Your task to perform on an android device: Check the weather Image 0: 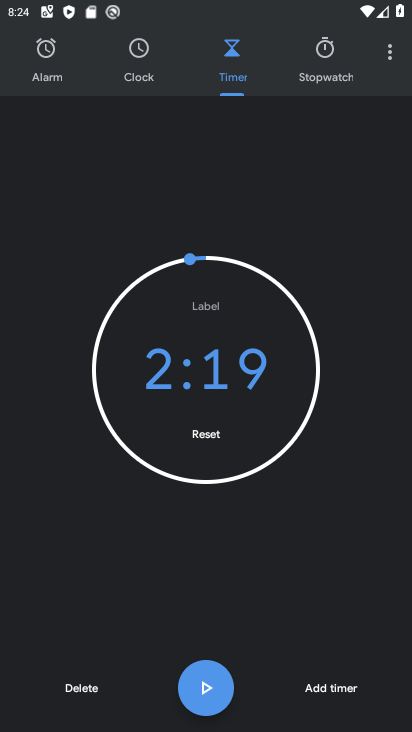
Step 0: press home button
Your task to perform on an android device: Check the weather Image 1: 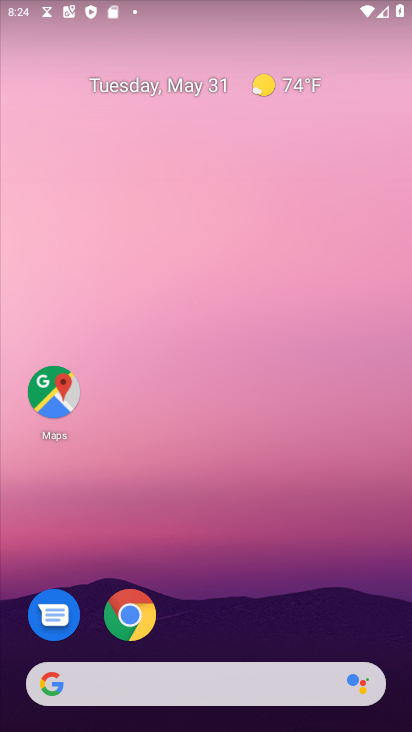
Step 1: click (269, 84)
Your task to perform on an android device: Check the weather Image 2: 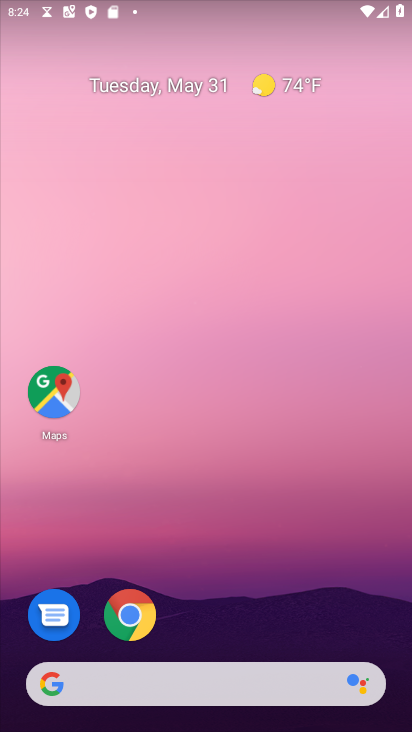
Step 2: click (285, 81)
Your task to perform on an android device: Check the weather Image 3: 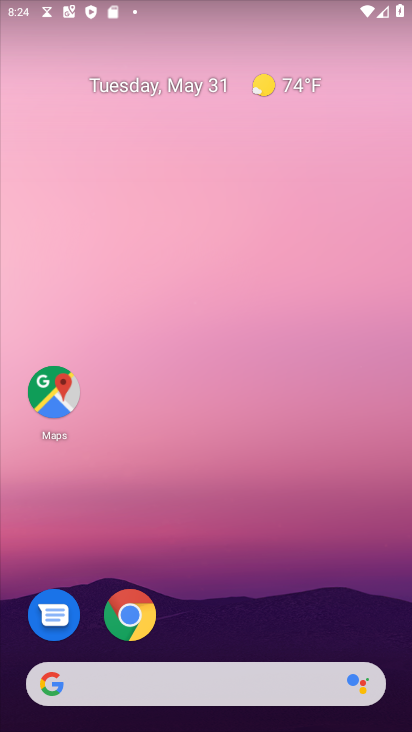
Step 3: click (285, 83)
Your task to perform on an android device: Check the weather Image 4: 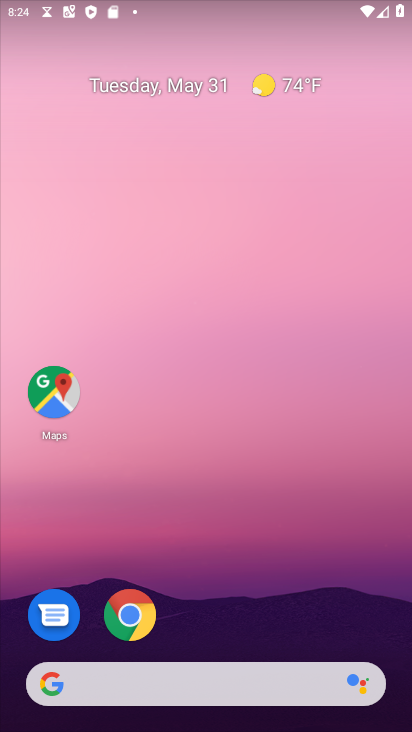
Step 4: click (261, 82)
Your task to perform on an android device: Check the weather Image 5: 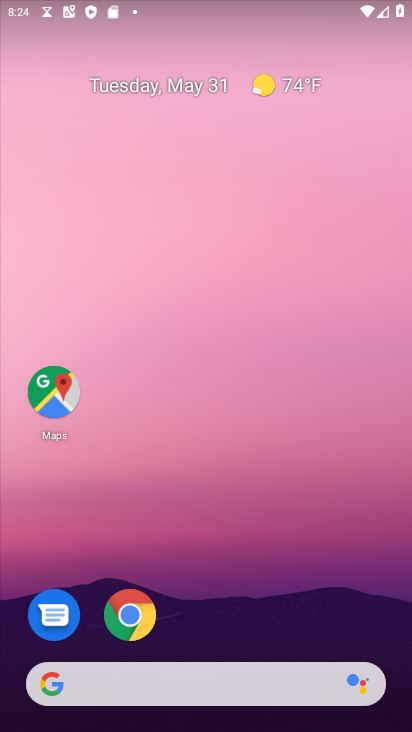
Step 5: click (59, 686)
Your task to perform on an android device: Check the weather Image 6: 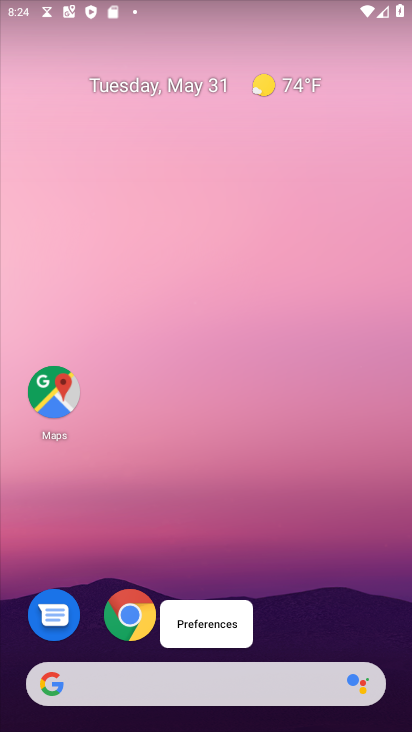
Step 6: click (57, 686)
Your task to perform on an android device: Check the weather Image 7: 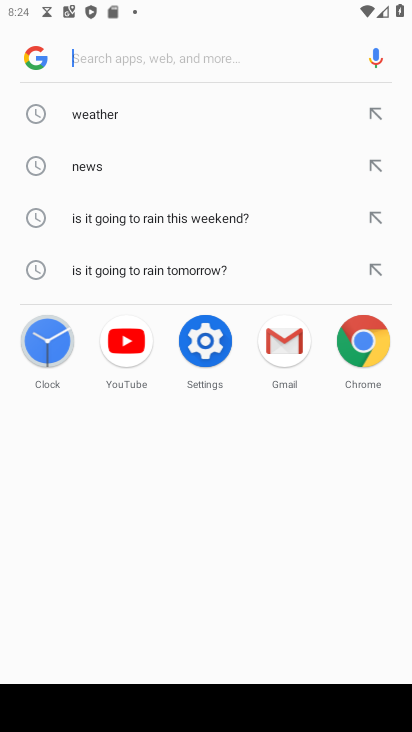
Step 7: click (100, 105)
Your task to perform on an android device: Check the weather Image 8: 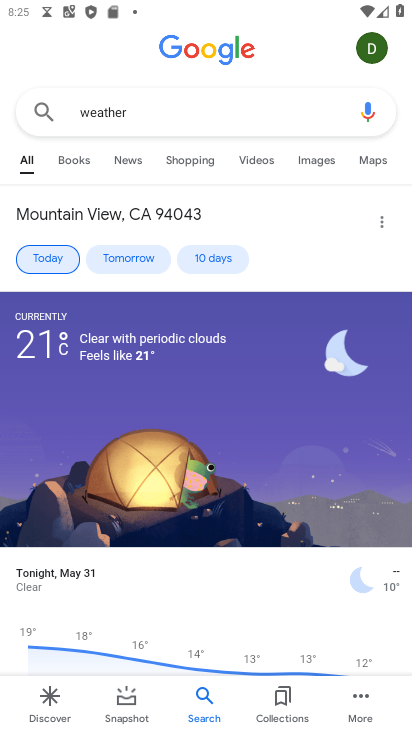
Step 8: task complete